Your task to perform on an android device: see sites visited before in the chrome app Image 0: 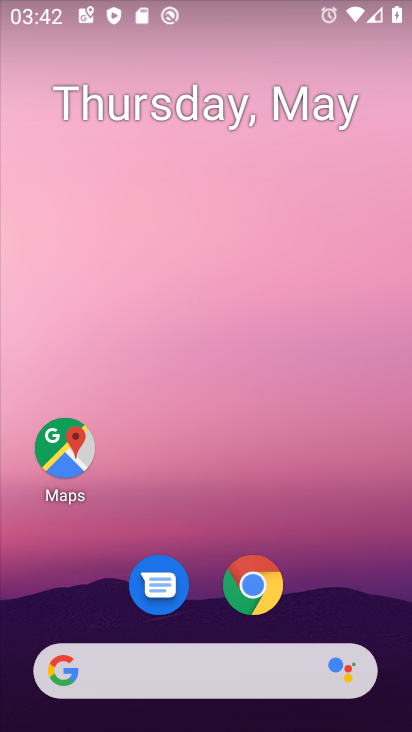
Step 0: click (253, 576)
Your task to perform on an android device: see sites visited before in the chrome app Image 1: 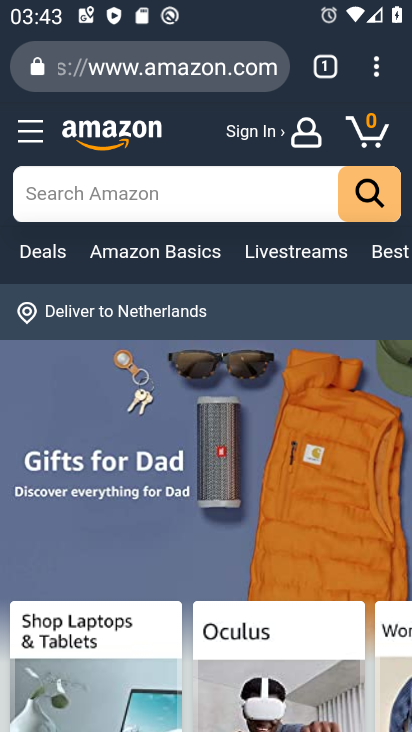
Step 1: click (371, 65)
Your task to perform on an android device: see sites visited before in the chrome app Image 2: 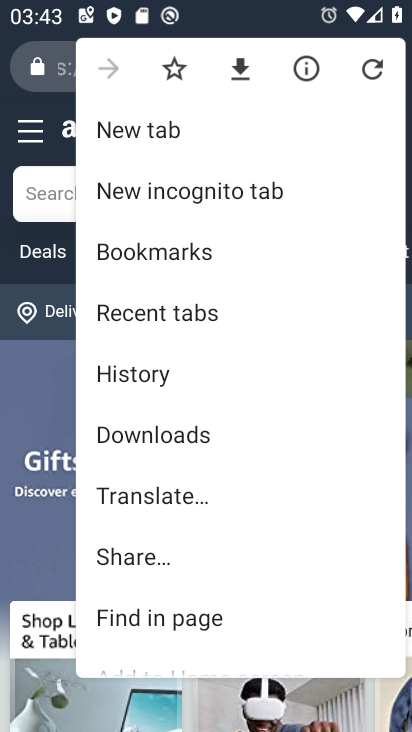
Step 2: click (186, 302)
Your task to perform on an android device: see sites visited before in the chrome app Image 3: 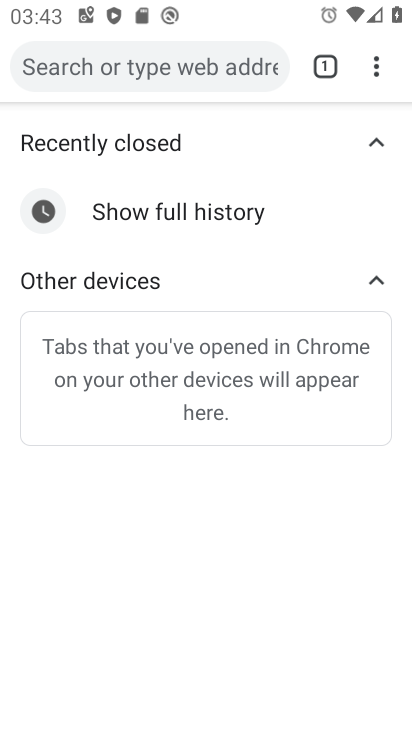
Step 3: task complete